Your task to perform on an android device: delete the emails in spam in the gmail app Image 0: 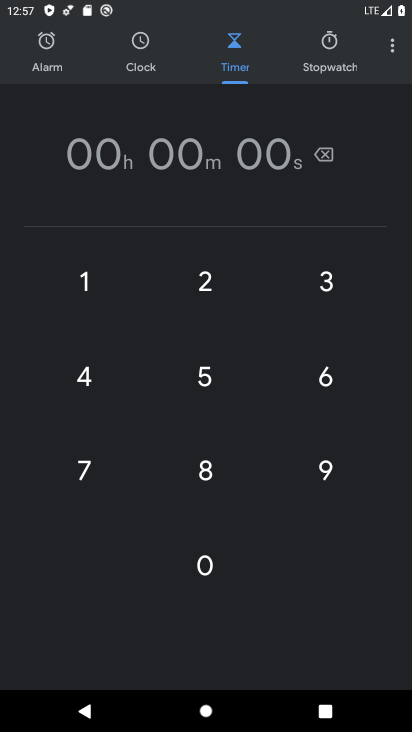
Step 0: press home button
Your task to perform on an android device: delete the emails in spam in the gmail app Image 1: 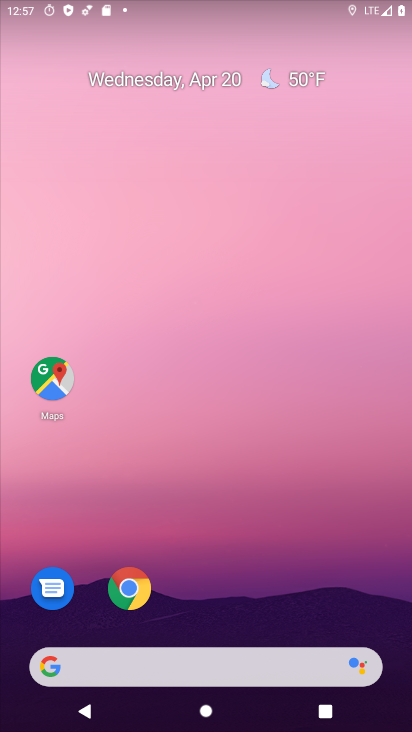
Step 1: drag from (218, 635) to (298, 6)
Your task to perform on an android device: delete the emails in spam in the gmail app Image 2: 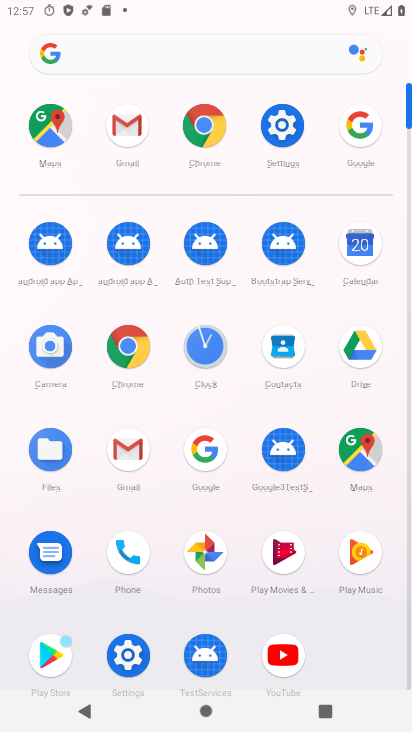
Step 2: click (128, 442)
Your task to perform on an android device: delete the emails in spam in the gmail app Image 3: 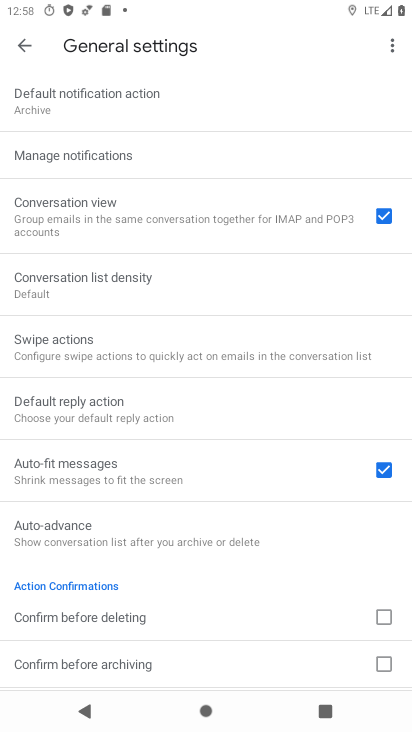
Step 3: click (25, 30)
Your task to perform on an android device: delete the emails in spam in the gmail app Image 4: 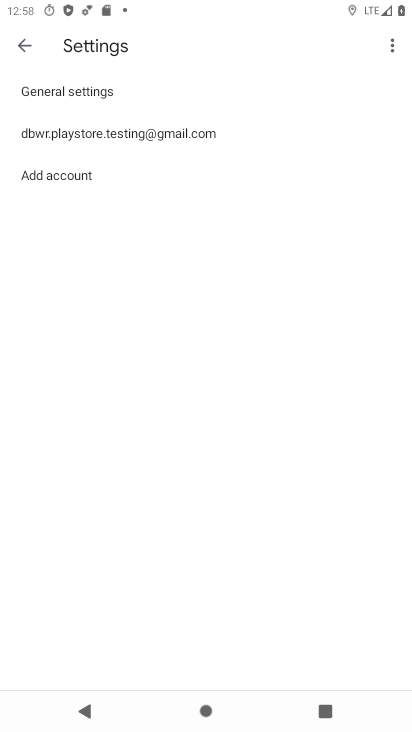
Step 4: click (24, 45)
Your task to perform on an android device: delete the emails in spam in the gmail app Image 5: 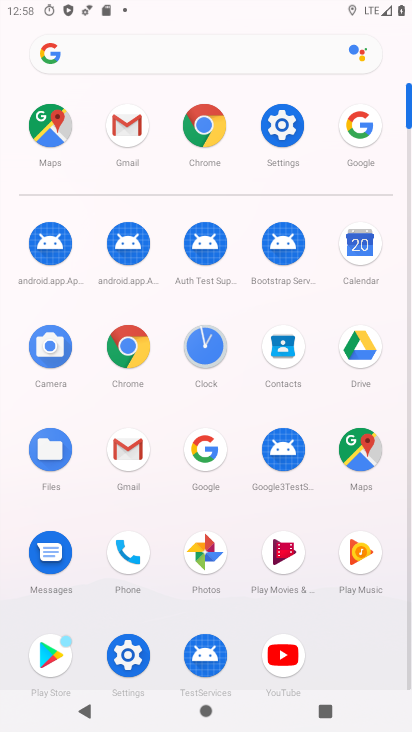
Step 5: click (130, 128)
Your task to perform on an android device: delete the emails in spam in the gmail app Image 6: 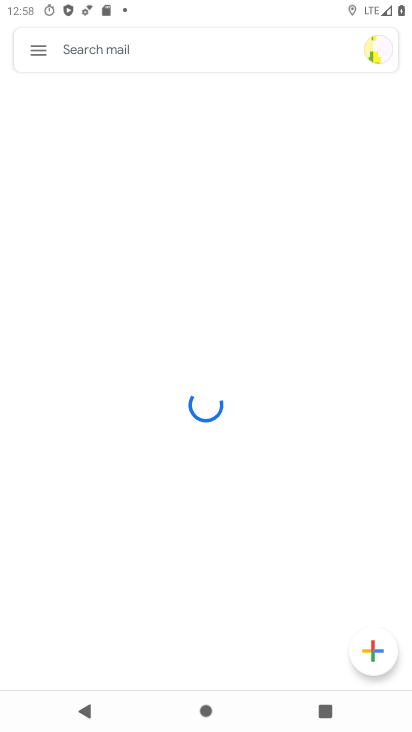
Step 6: task complete